Your task to perform on an android device: Search for Italian restaurants on Maps Image 0: 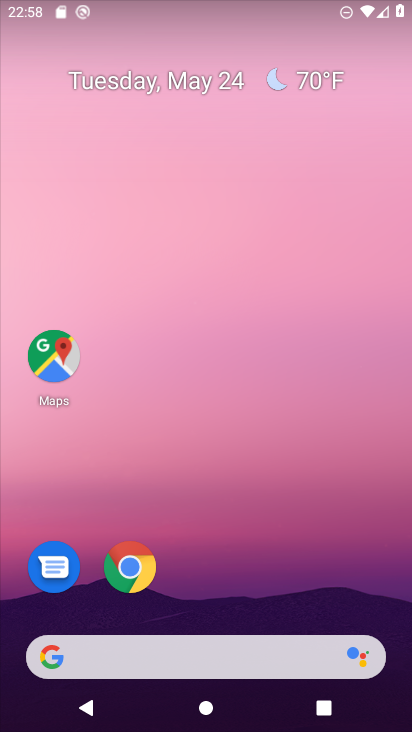
Step 0: click (328, 446)
Your task to perform on an android device: Search for Italian restaurants on Maps Image 1: 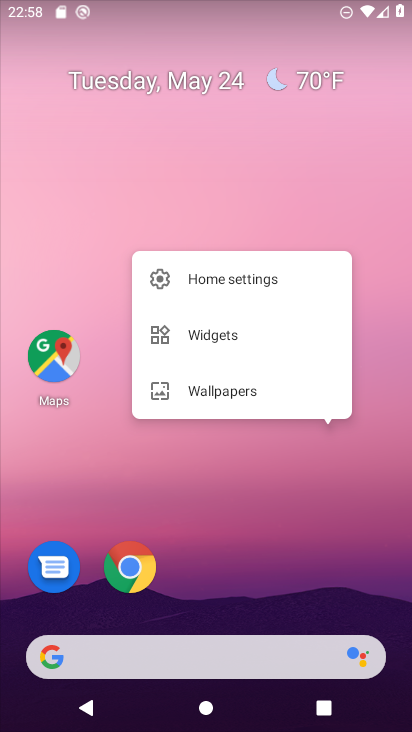
Step 1: click (59, 362)
Your task to perform on an android device: Search for Italian restaurants on Maps Image 2: 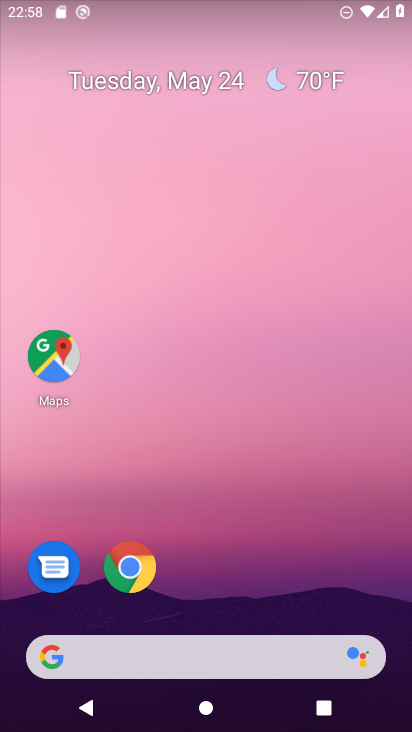
Step 2: click (60, 360)
Your task to perform on an android device: Search for Italian restaurants on Maps Image 3: 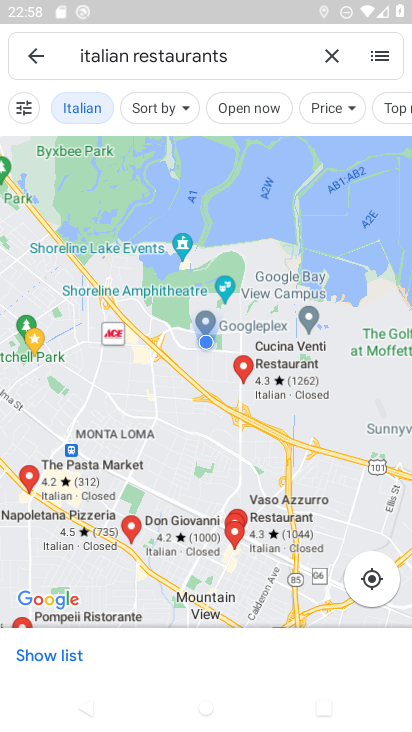
Step 3: task complete